Your task to perform on an android device: Show me the alarms in the clock app Image 0: 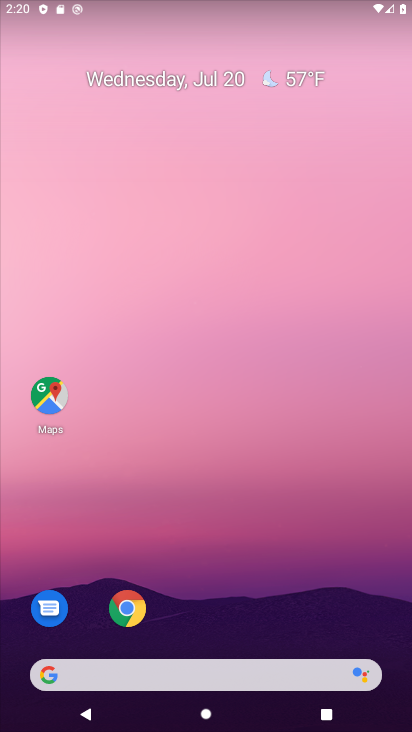
Step 0: drag from (175, 638) to (95, 163)
Your task to perform on an android device: Show me the alarms in the clock app Image 1: 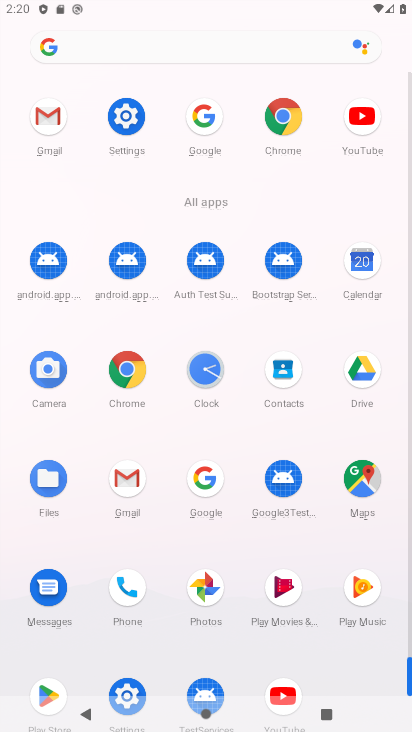
Step 1: click (201, 370)
Your task to perform on an android device: Show me the alarms in the clock app Image 2: 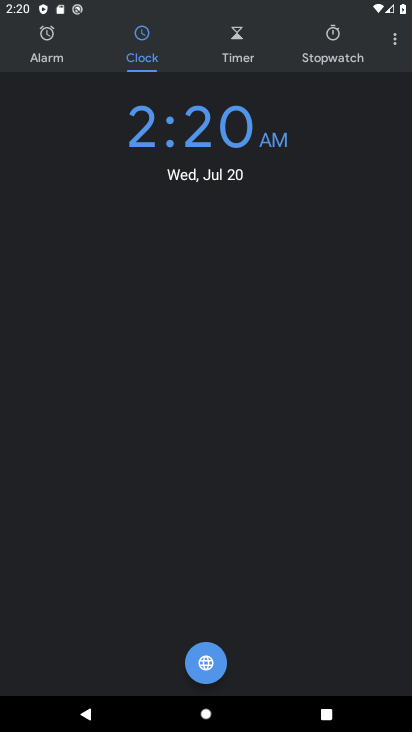
Step 2: click (24, 40)
Your task to perform on an android device: Show me the alarms in the clock app Image 3: 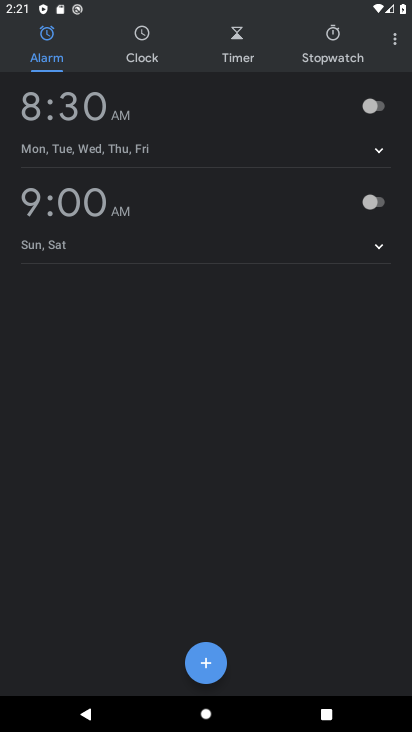
Step 3: click (360, 93)
Your task to perform on an android device: Show me the alarms in the clock app Image 4: 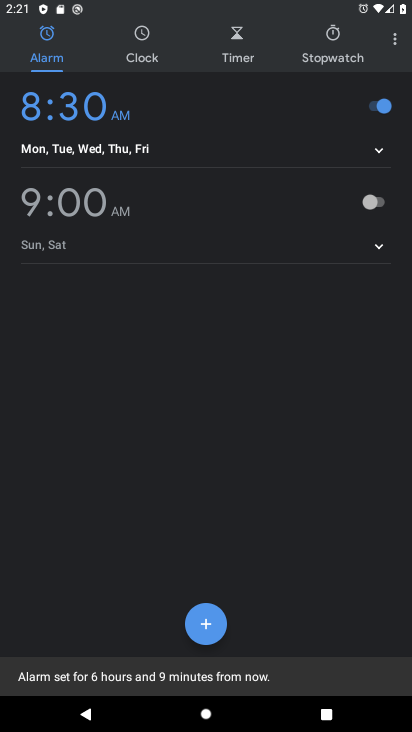
Step 4: task complete